Your task to perform on an android device: Open calendar and show me the second week of next month Image 0: 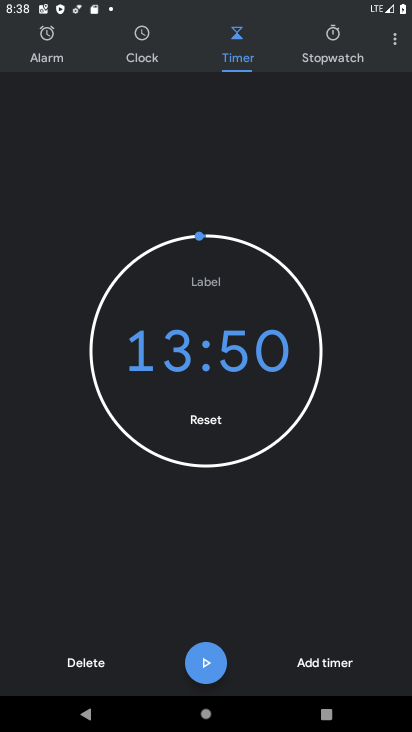
Step 0: press home button
Your task to perform on an android device: Open calendar and show me the second week of next month Image 1: 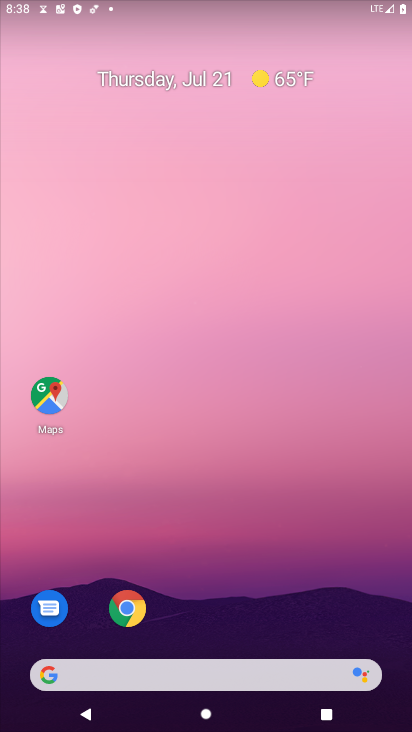
Step 1: drag from (214, 667) to (287, 191)
Your task to perform on an android device: Open calendar and show me the second week of next month Image 2: 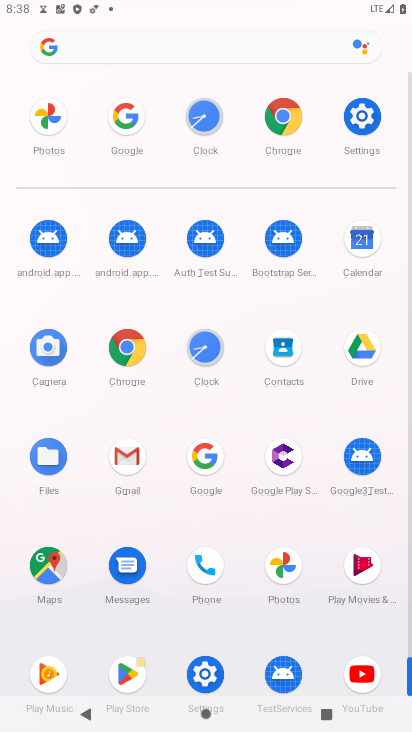
Step 2: click (364, 235)
Your task to perform on an android device: Open calendar and show me the second week of next month Image 3: 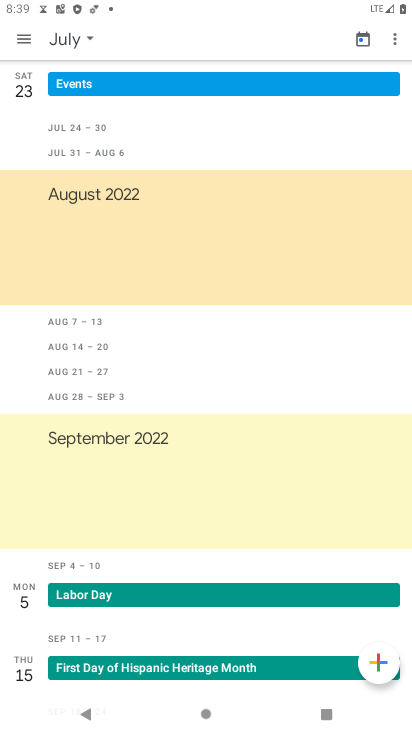
Step 3: click (362, 37)
Your task to perform on an android device: Open calendar and show me the second week of next month Image 4: 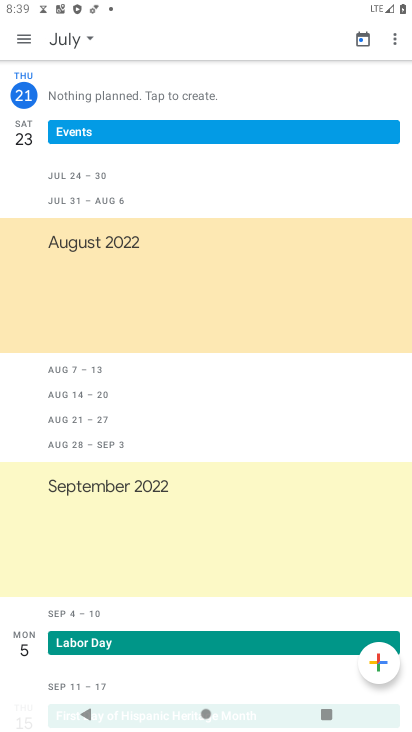
Step 4: click (90, 40)
Your task to perform on an android device: Open calendar and show me the second week of next month Image 5: 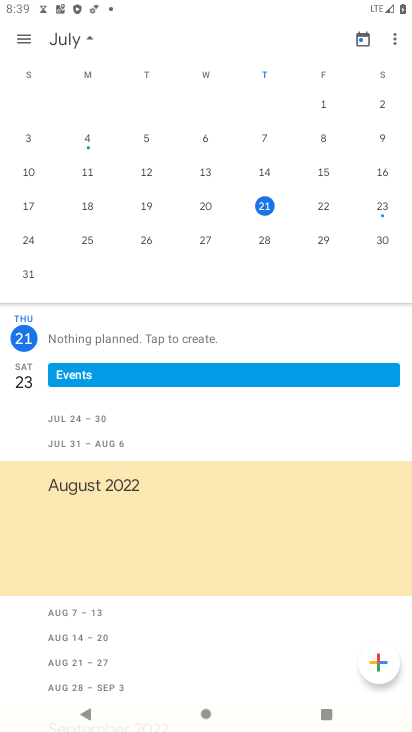
Step 5: drag from (354, 181) to (6, 221)
Your task to perform on an android device: Open calendar and show me the second week of next month Image 6: 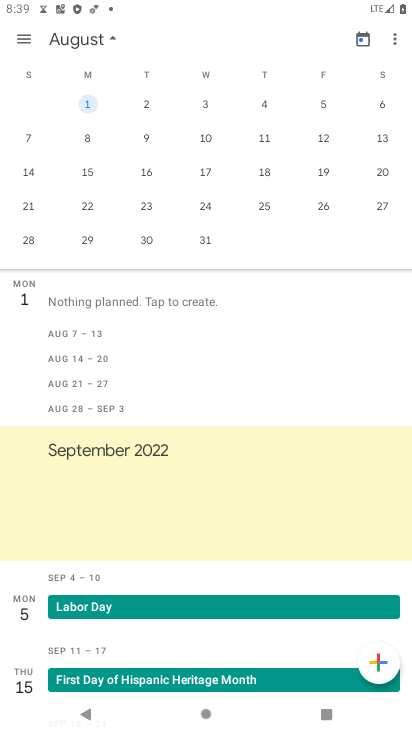
Step 6: click (92, 141)
Your task to perform on an android device: Open calendar and show me the second week of next month Image 7: 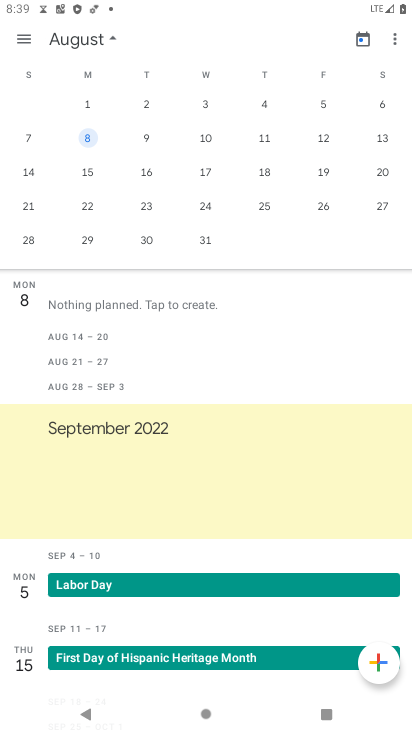
Step 7: click (27, 37)
Your task to perform on an android device: Open calendar and show me the second week of next month Image 8: 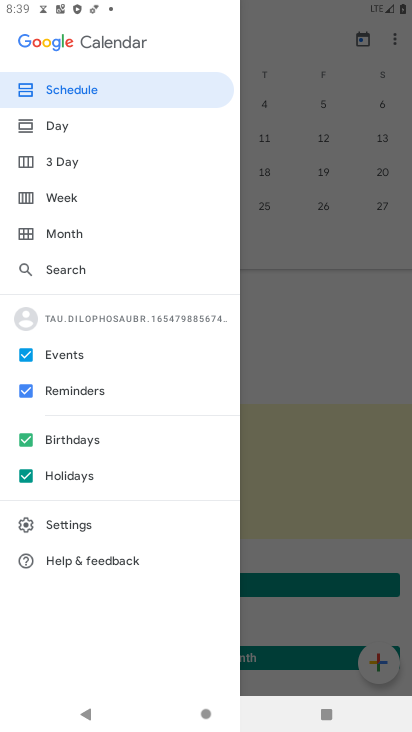
Step 8: click (70, 199)
Your task to perform on an android device: Open calendar and show me the second week of next month Image 9: 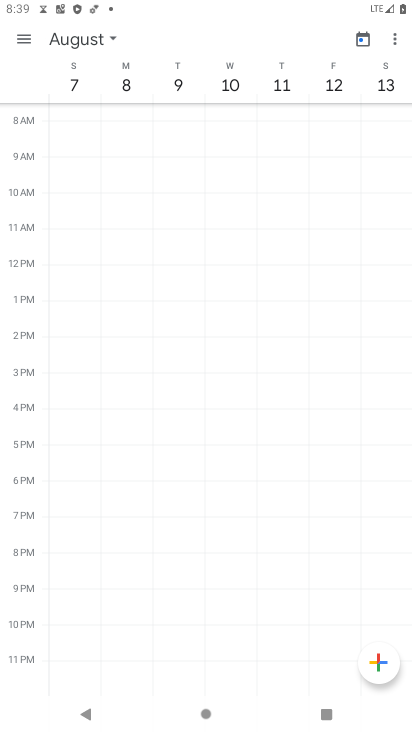
Step 9: task complete